Your task to perform on an android device: Open accessibility settings Image 0: 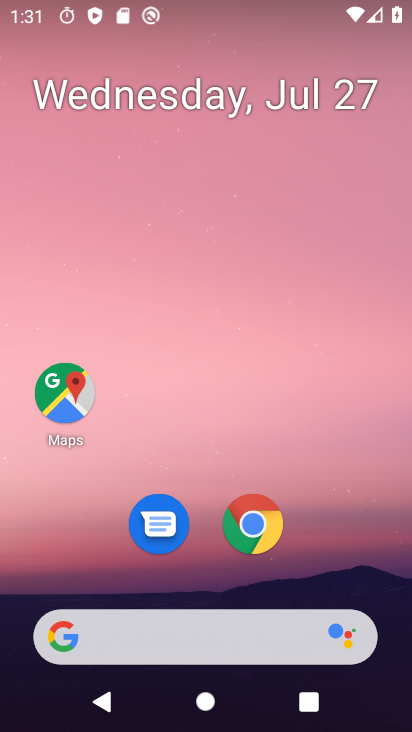
Step 0: drag from (324, 534) to (356, 18)
Your task to perform on an android device: Open accessibility settings Image 1: 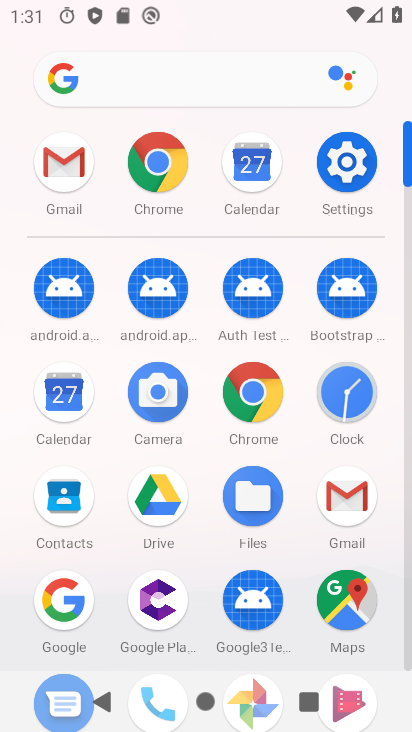
Step 1: click (342, 164)
Your task to perform on an android device: Open accessibility settings Image 2: 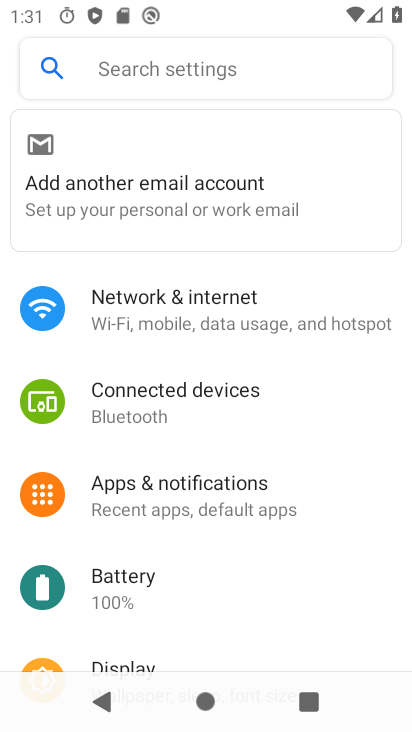
Step 2: drag from (207, 595) to (219, 242)
Your task to perform on an android device: Open accessibility settings Image 3: 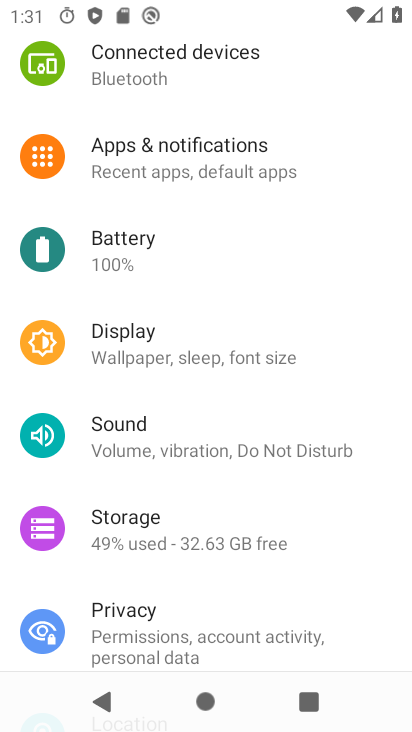
Step 3: drag from (245, 608) to (284, 116)
Your task to perform on an android device: Open accessibility settings Image 4: 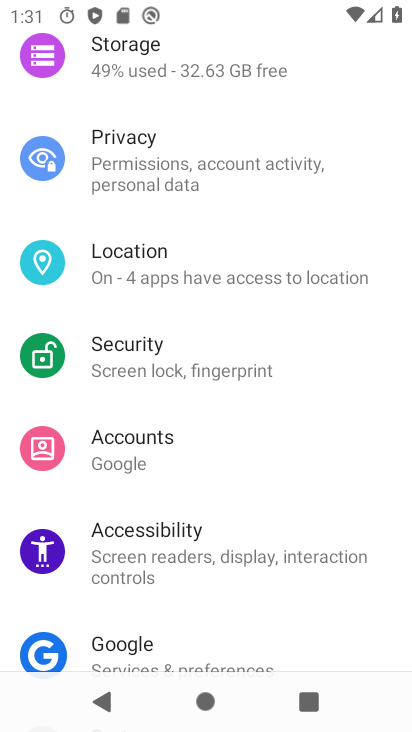
Step 4: click (229, 539)
Your task to perform on an android device: Open accessibility settings Image 5: 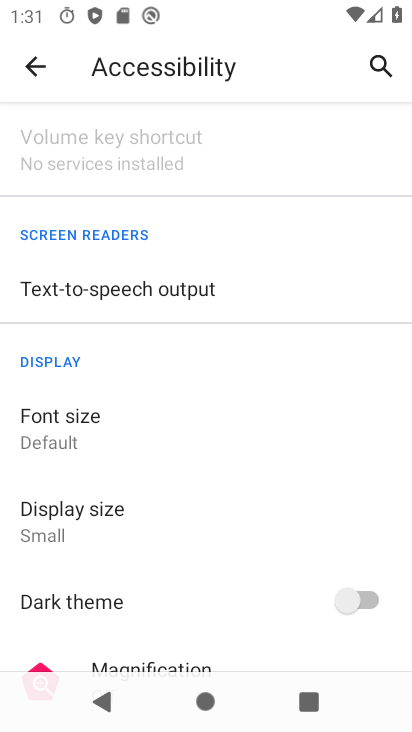
Step 5: task complete